Your task to perform on an android device: open the mobile data screen to see how much data has been used Image 0: 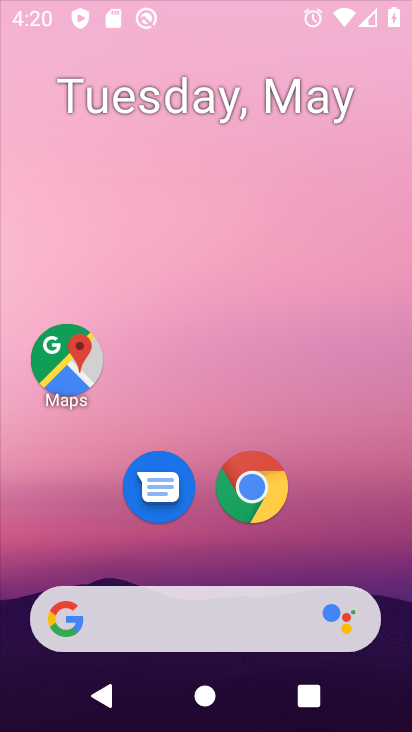
Step 0: drag from (336, 447) to (294, 77)
Your task to perform on an android device: open the mobile data screen to see how much data has been used Image 1: 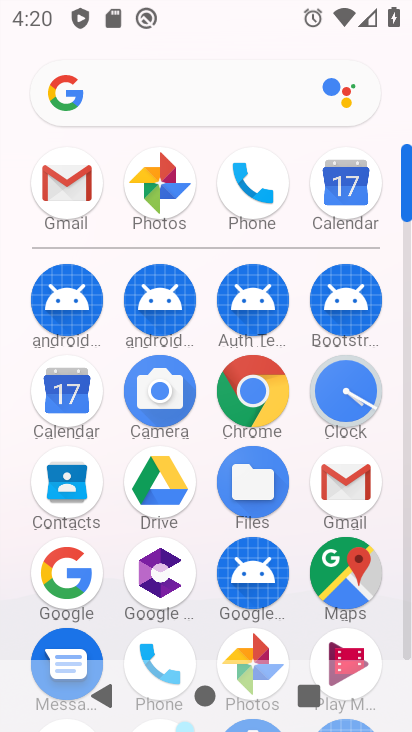
Step 1: drag from (286, 519) to (316, 157)
Your task to perform on an android device: open the mobile data screen to see how much data has been used Image 2: 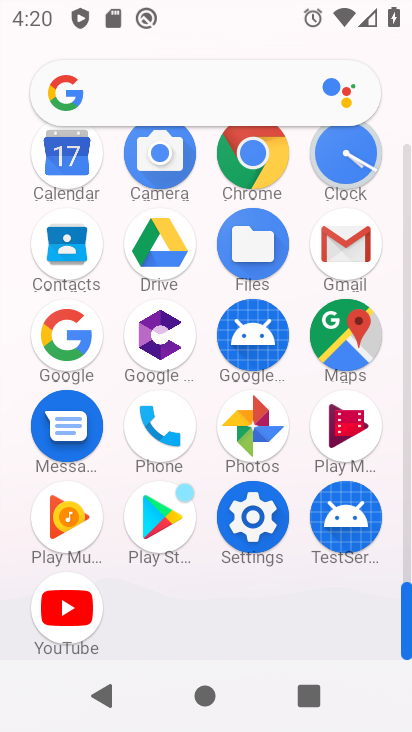
Step 2: click (263, 515)
Your task to perform on an android device: open the mobile data screen to see how much data has been used Image 3: 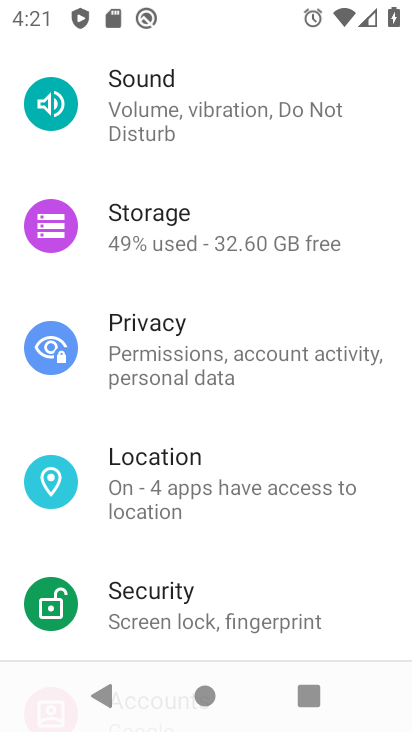
Step 3: drag from (227, 346) to (217, 714)
Your task to perform on an android device: open the mobile data screen to see how much data has been used Image 4: 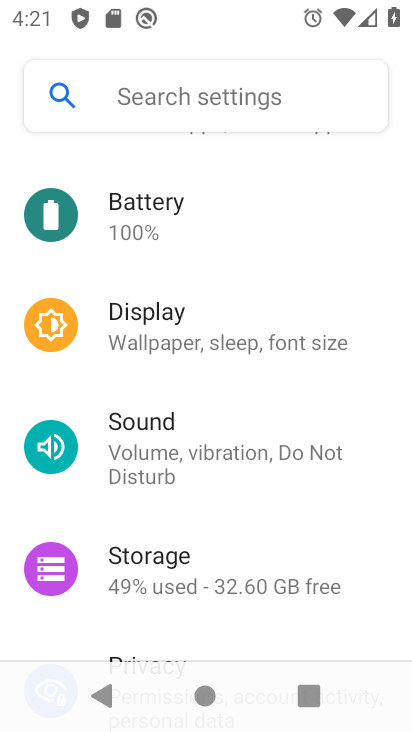
Step 4: drag from (269, 273) to (260, 592)
Your task to perform on an android device: open the mobile data screen to see how much data has been used Image 5: 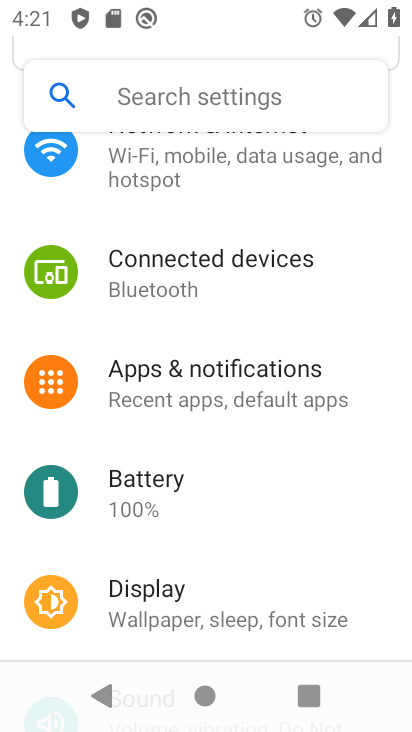
Step 5: drag from (265, 204) to (219, 554)
Your task to perform on an android device: open the mobile data screen to see how much data has been used Image 6: 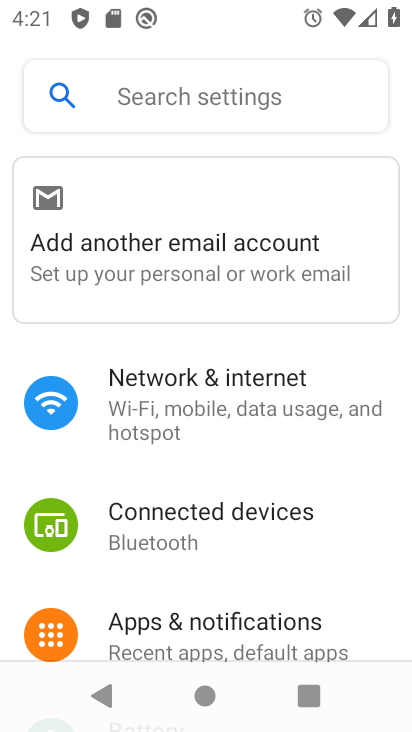
Step 6: click (234, 392)
Your task to perform on an android device: open the mobile data screen to see how much data has been used Image 7: 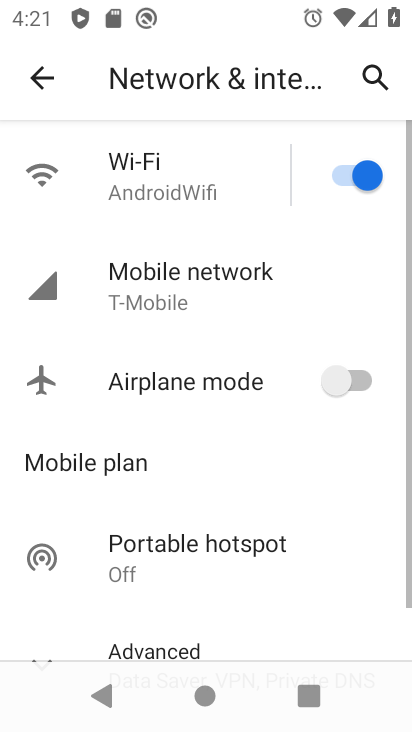
Step 7: click (226, 263)
Your task to perform on an android device: open the mobile data screen to see how much data has been used Image 8: 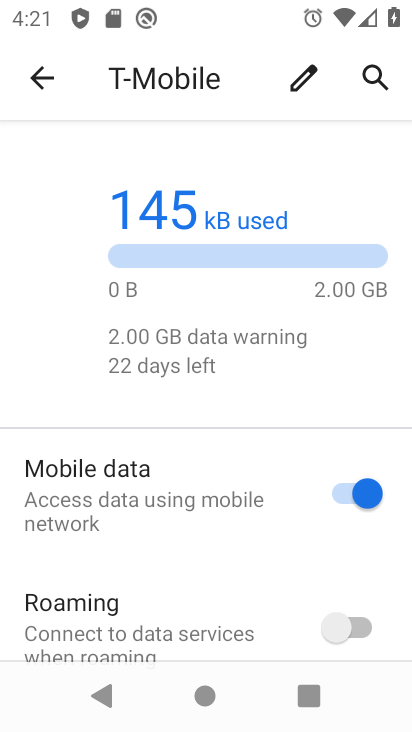
Step 8: task complete